Your task to perform on an android device: turn off smart reply in the gmail app Image 0: 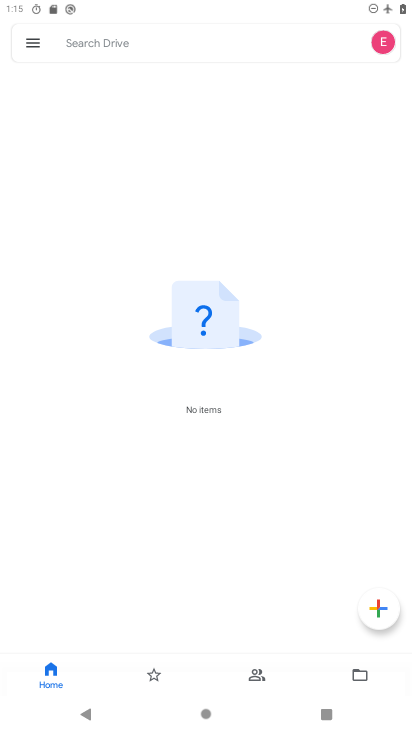
Step 0: press home button
Your task to perform on an android device: turn off smart reply in the gmail app Image 1: 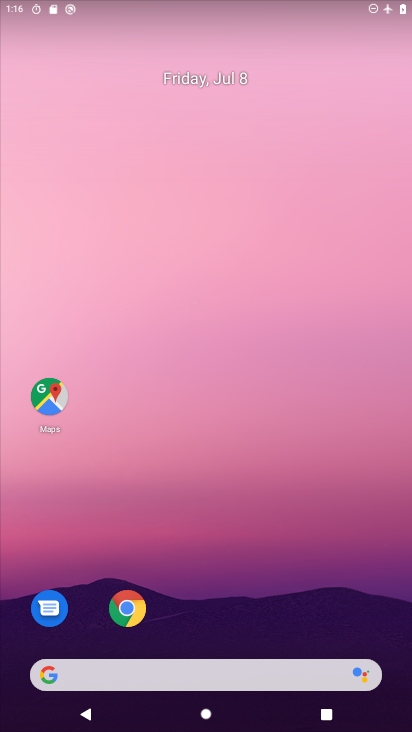
Step 1: drag from (239, 699) to (239, 109)
Your task to perform on an android device: turn off smart reply in the gmail app Image 2: 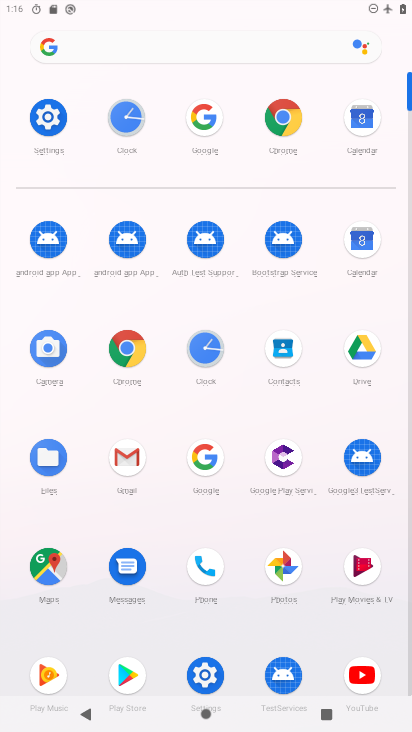
Step 2: click (133, 451)
Your task to perform on an android device: turn off smart reply in the gmail app Image 3: 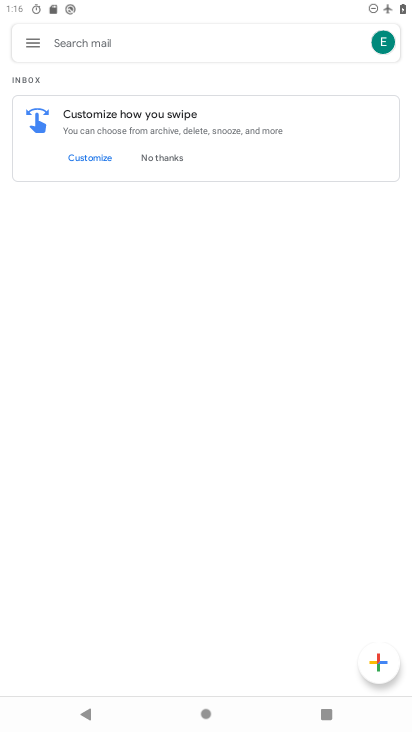
Step 3: click (34, 38)
Your task to perform on an android device: turn off smart reply in the gmail app Image 4: 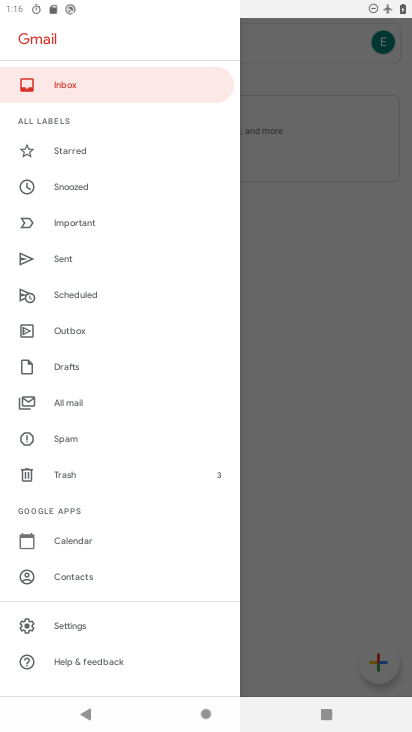
Step 4: click (69, 624)
Your task to perform on an android device: turn off smart reply in the gmail app Image 5: 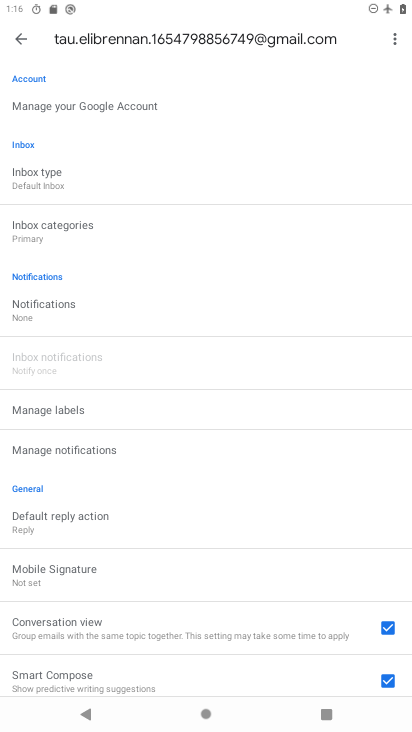
Step 5: drag from (65, 649) to (128, 292)
Your task to perform on an android device: turn off smart reply in the gmail app Image 6: 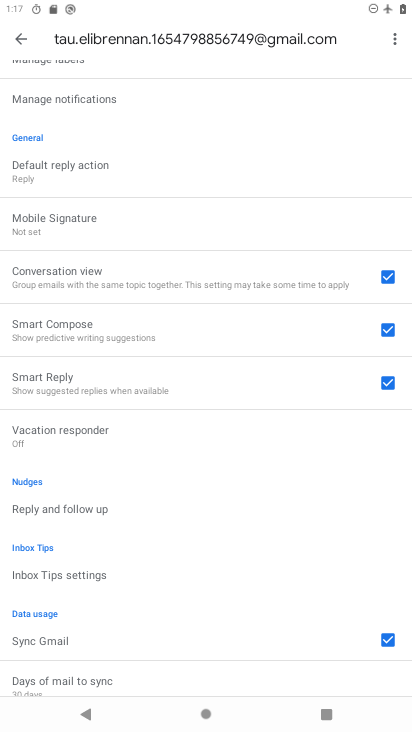
Step 6: click (389, 381)
Your task to perform on an android device: turn off smart reply in the gmail app Image 7: 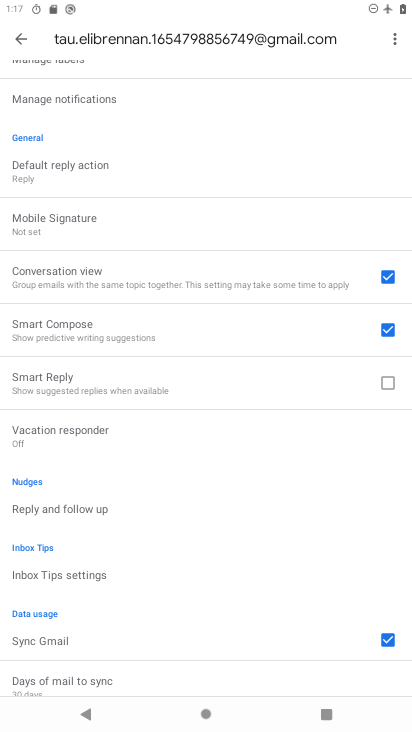
Step 7: task complete